Your task to perform on an android device: Open Chrome and go to the settings page Image 0: 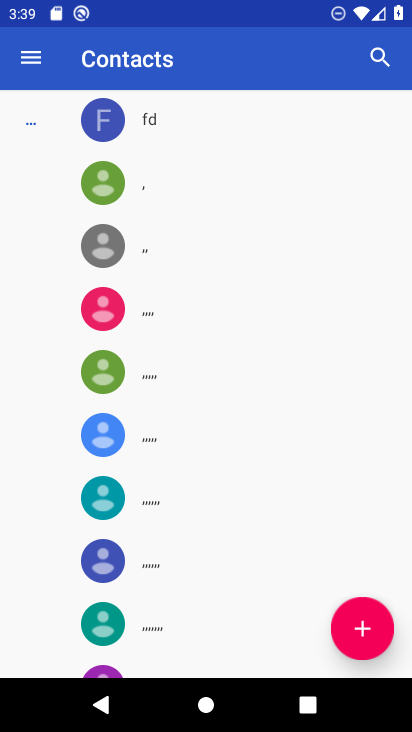
Step 0: press home button
Your task to perform on an android device: Open Chrome and go to the settings page Image 1: 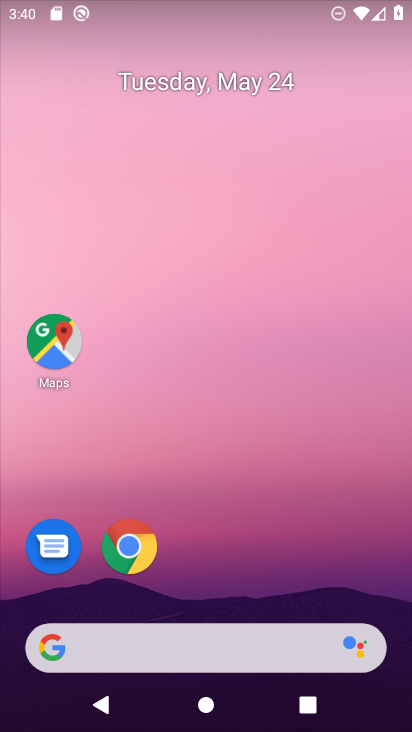
Step 1: click (145, 556)
Your task to perform on an android device: Open Chrome and go to the settings page Image 2: 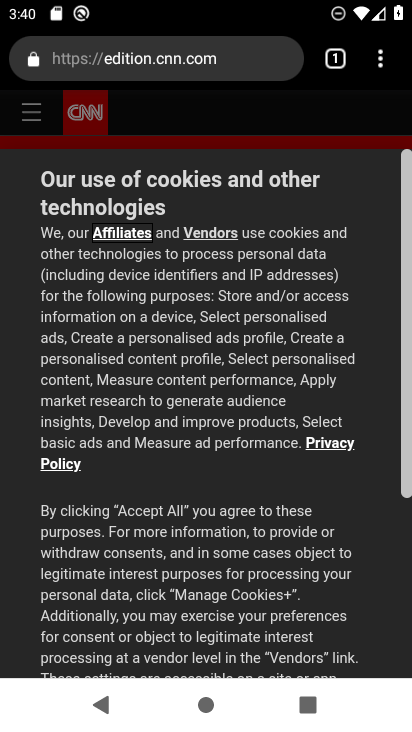
Step 2: click (383, 64)
Your task to perform on an android device: Open Chrome and go to the settings page Image 3: 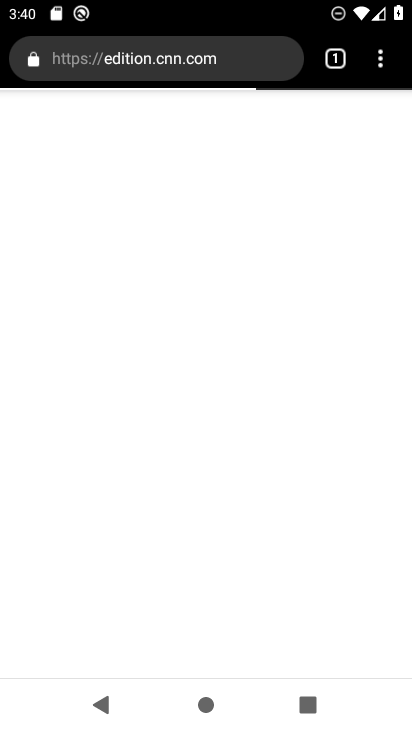
Step 3: click (376, 57)
Your task to perform on an android device: Open Chrome and go to the settings page Image 4: 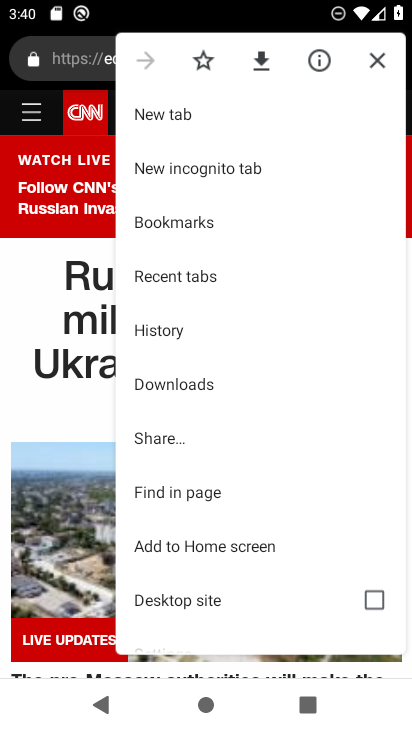
Step 4: drag from (249, 523) to (253, 155)
Your task to perform on an android device: Open Chrome and go to the settings page Image 5: 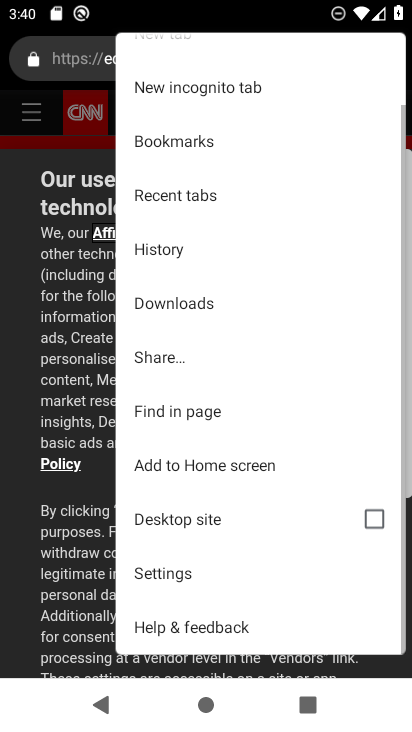
Step 5: click (201, 576)
Your task to perform on an android device: Open Chrome and go to the settings page Image 6: 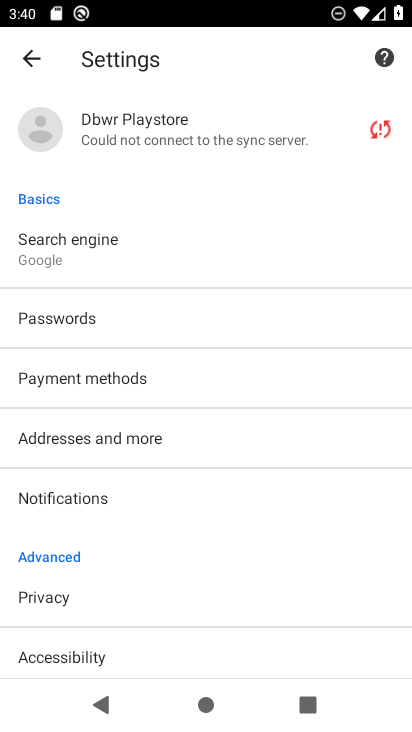
Step 6: task complete